Your task to perform on an android device: turn off picture-in-picture Image 0: 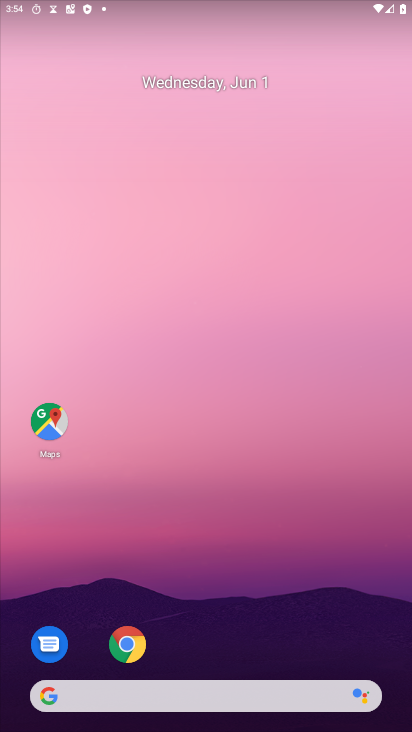
Step 0: click (134, 643)
Your task to perform on an android device: turn off picture-in-picture Image 1: 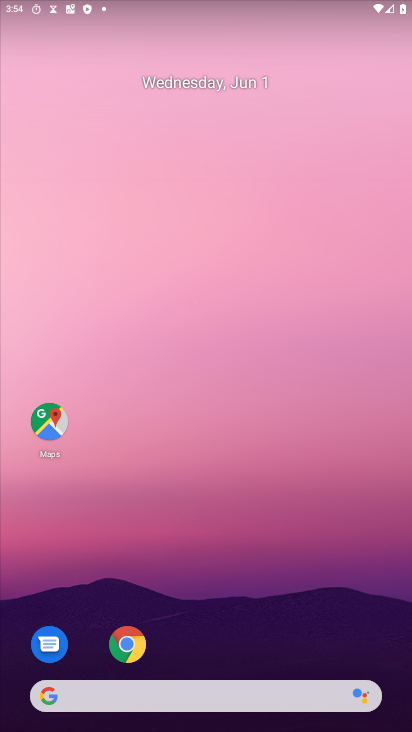
Step 1: click (130, 638)
Your task to perform on an android device: turn off picture-in-picture Image 2: 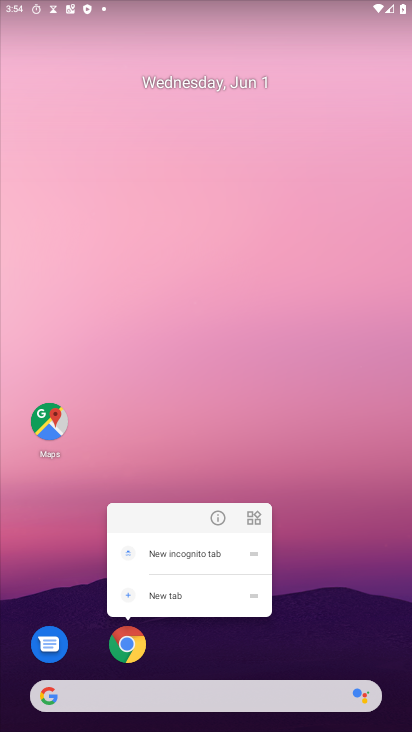
Step 2: click (213, 520)
Your task to perform on an android device: turn off picture-in-picture Image 3: 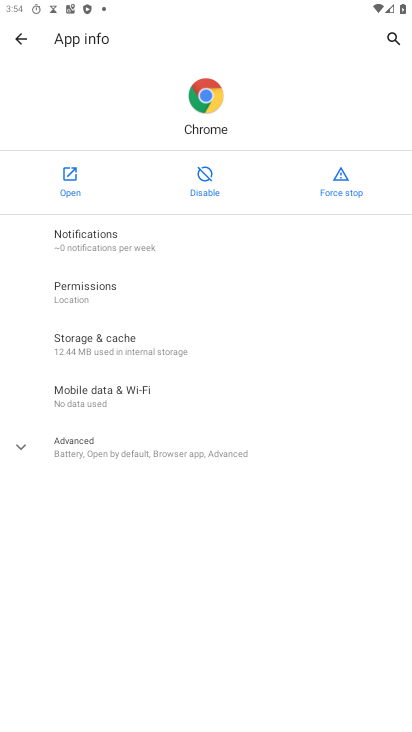
Step 3: click (20, 447)
Your task to perform on an android device: turn off picture-in-picture Image 4: 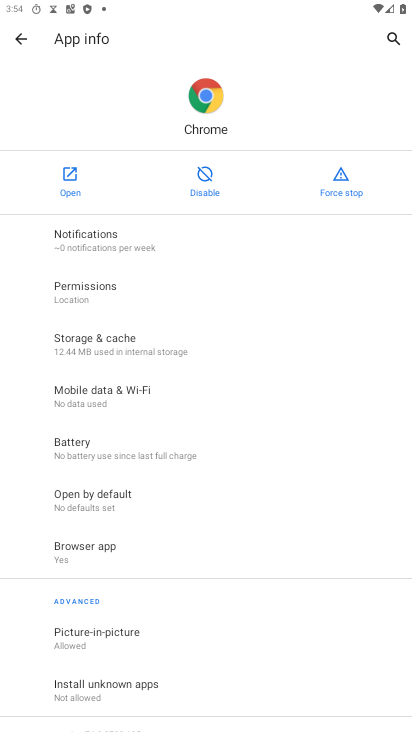
Step 4: click (159, 635)
Your task to perform on an android device: turn off picture-in-picture Image 5: 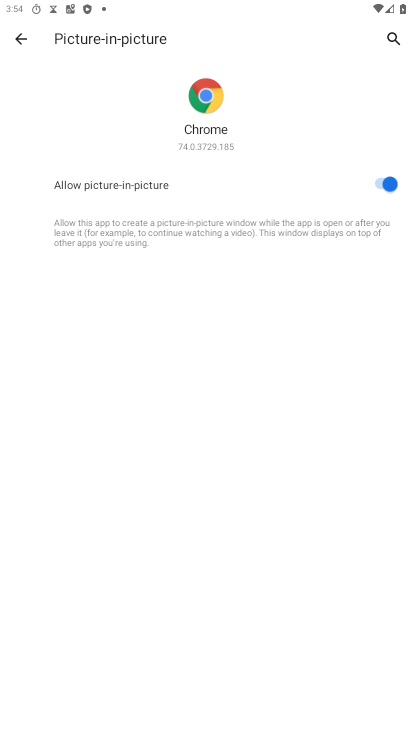
Step 5: click (384, 185)
Your task to perform on an android device: turn off picture-in-picture Image 6: 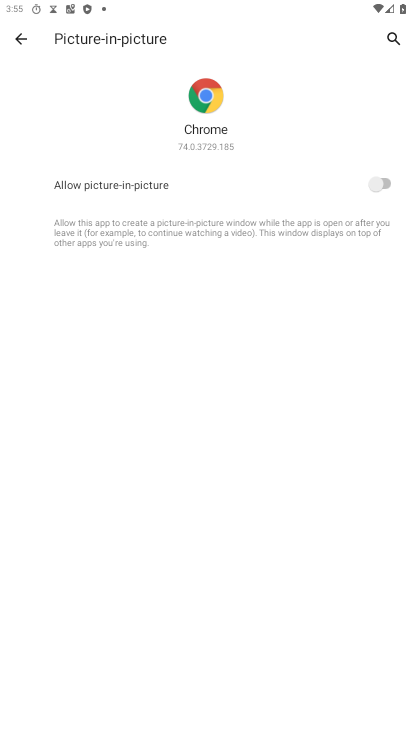
Step 6: task complete